Your task to perform on an android device: turn on the 24-hour format for clock Image 0: 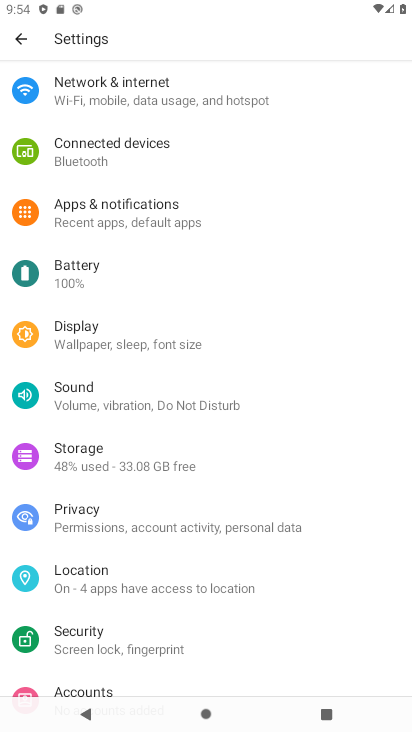
Step 0: press home button
Your task to perform on an android device: turn on the 24-hour format for clock Image 1: 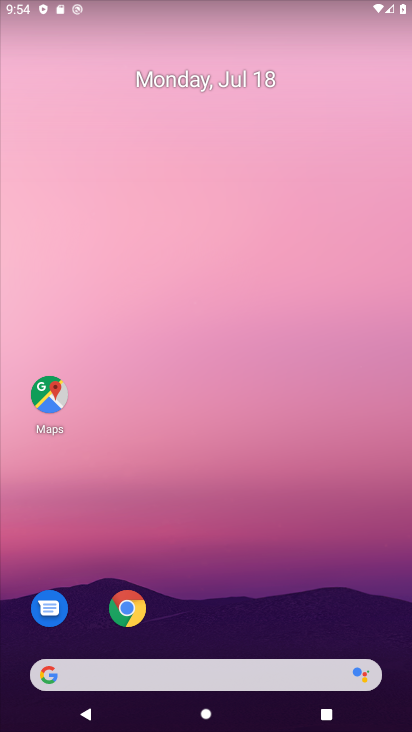
Step 1: drag from (238, 622) to (191, 47)
Your task to perform on an android device: turn on the 24-hour format for clock Image 2: 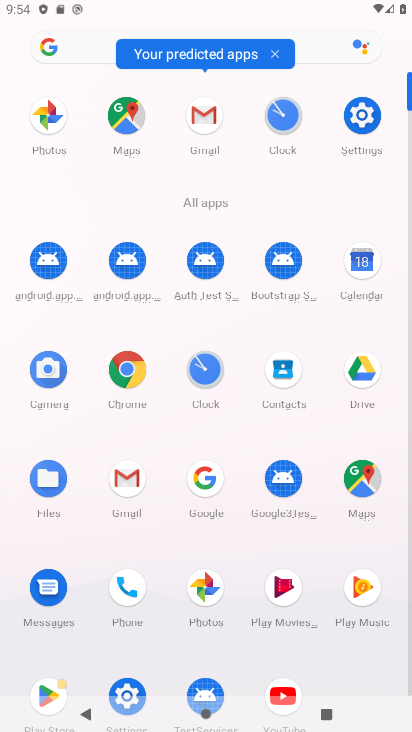
Step 2: click (280, 135)
Your task to perform on an android device: turn on the 24-hour format for clock Image 3: 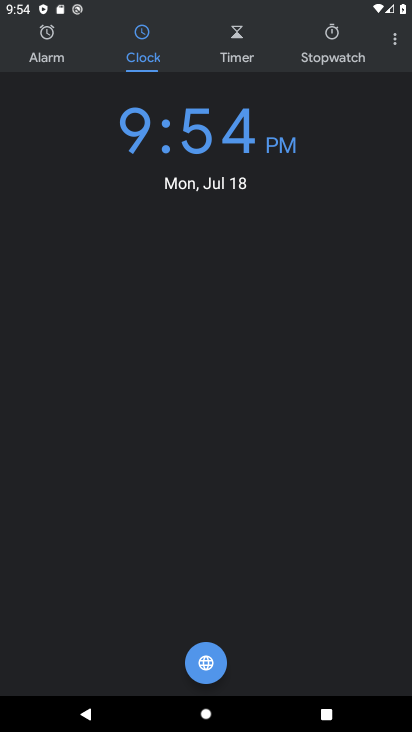
Step 3: click (398, 38)
Your task to perform on an android device: turn on the 24-hour format for clock Image 4: 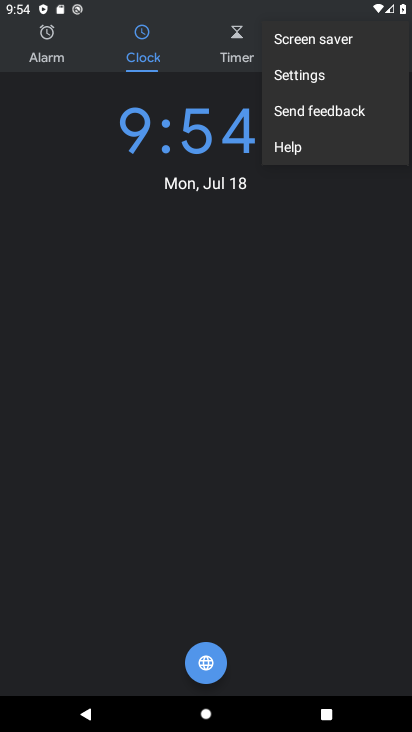
Step 4: click (353, 75)
Your task to perform on an android device: turn on the 24-hour format for clock Image 5: 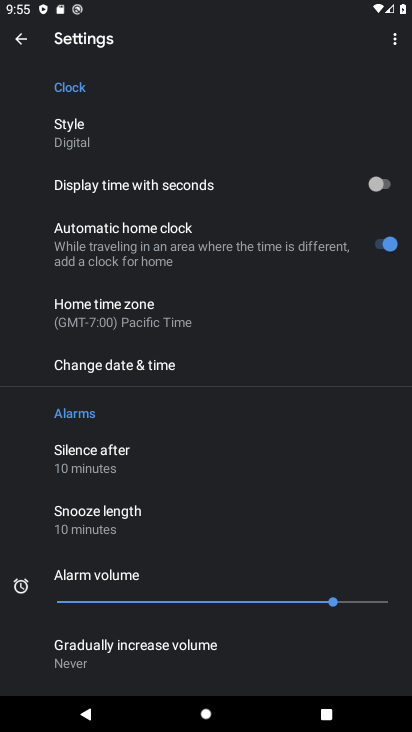
Step 5: click (279, 366)
Your task to perform on an android device: turn on the 24-hour format for clock Image 6: 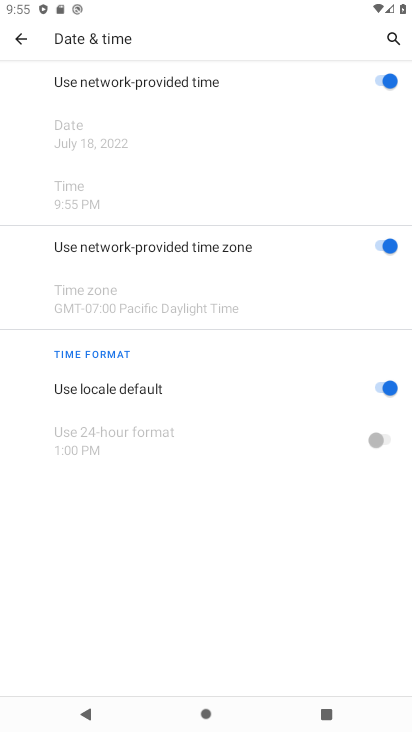
Step 6: click (389, 394)
Your task to perform on an android device: turn on the 24-hour format for clock Image 7: 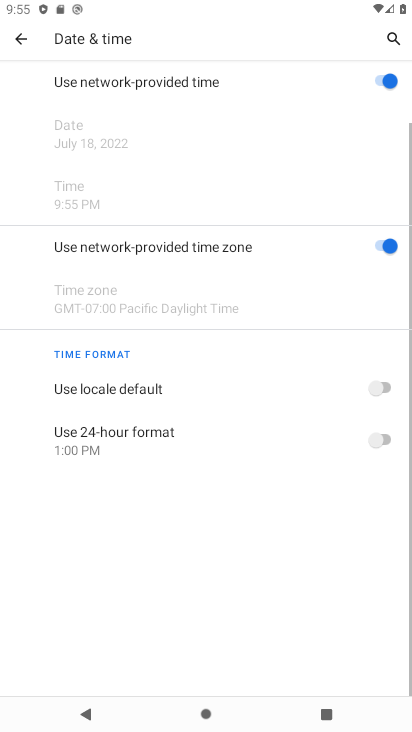
Step 7: click (386, 438)
Your task to perform on an android device: turn on the 24-hour format for clock Image 8: 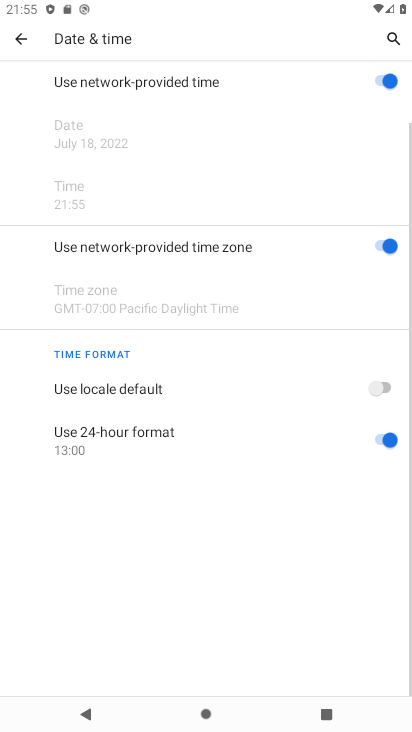
Step 8: task complete